Your task to perform on an android device: open app "Upside-Cash back on gas & food" Image 0: 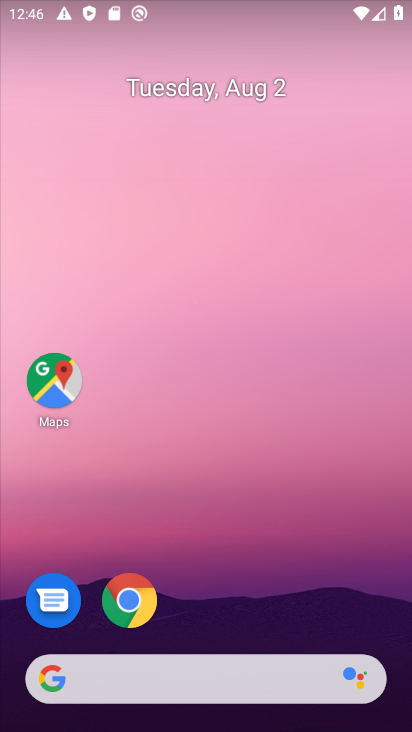
Step 0: press home button
Your task to perform on an android device: open app "Upside-Cash back on gas & food" Image 1: 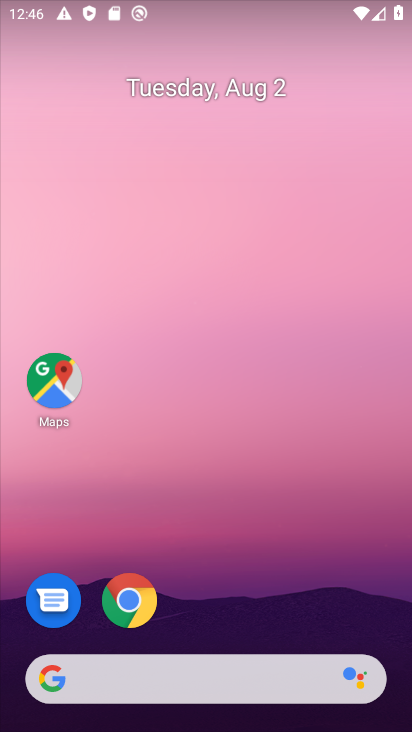
Step 1: drag from (216, 632) to (199, 0)
Your task to perform on an android device: open app "Upside-Cash back on gas & food" Image 2: 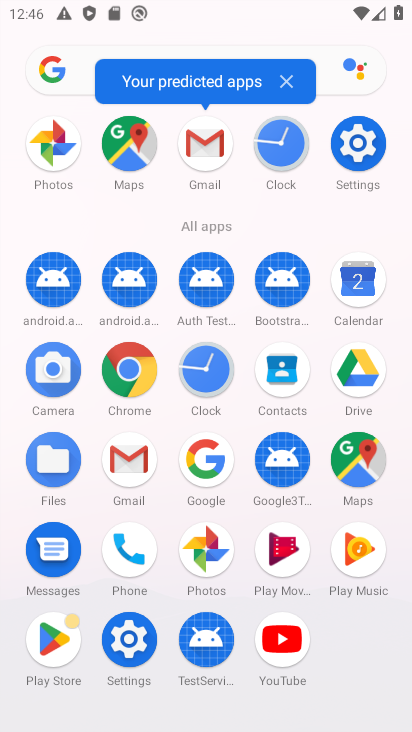
Step 2: click (49, 632)
Your task to perform on an android device: open app "Upside-Cash back on gas & food" Image 3: 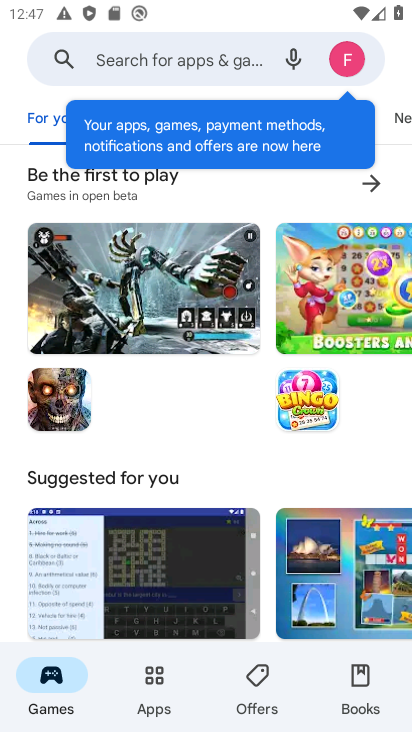
Step 3: click (157, 57)
Your task to perform on an android device: open app "Upside-Cash back on gas & food" Image 4: 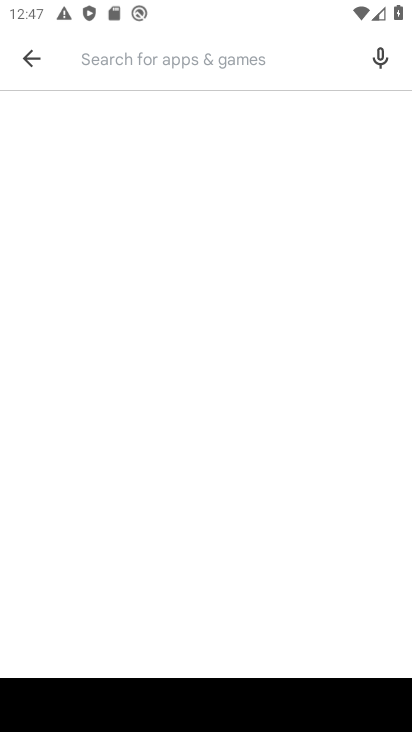
Step 4: type "Upside-Cash back on gas & food"
Your task to perform on an android device: open app "Upside-Cash back on gas & food" Image 5: 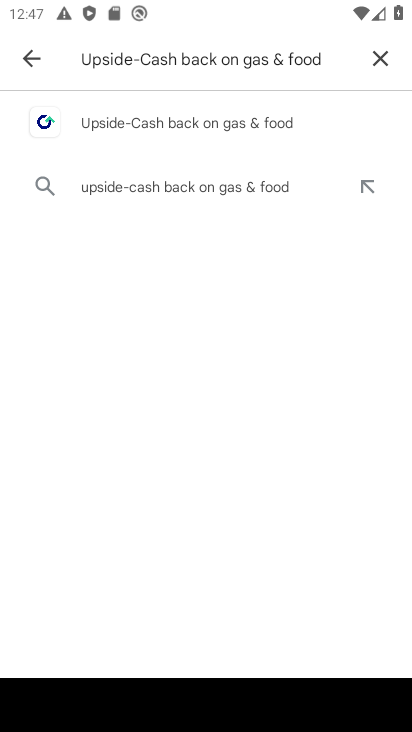
Step 5: click (166, 125)
Your task to perform on an android device: open app "Upside-Cash back on gas & food" Image 6: 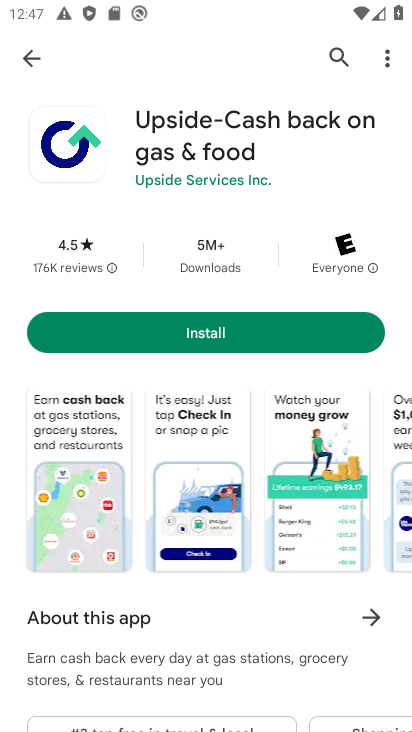
Step 6: task complete